Your task to perform on an android device: add a label to a message in the gmail app Image 0: 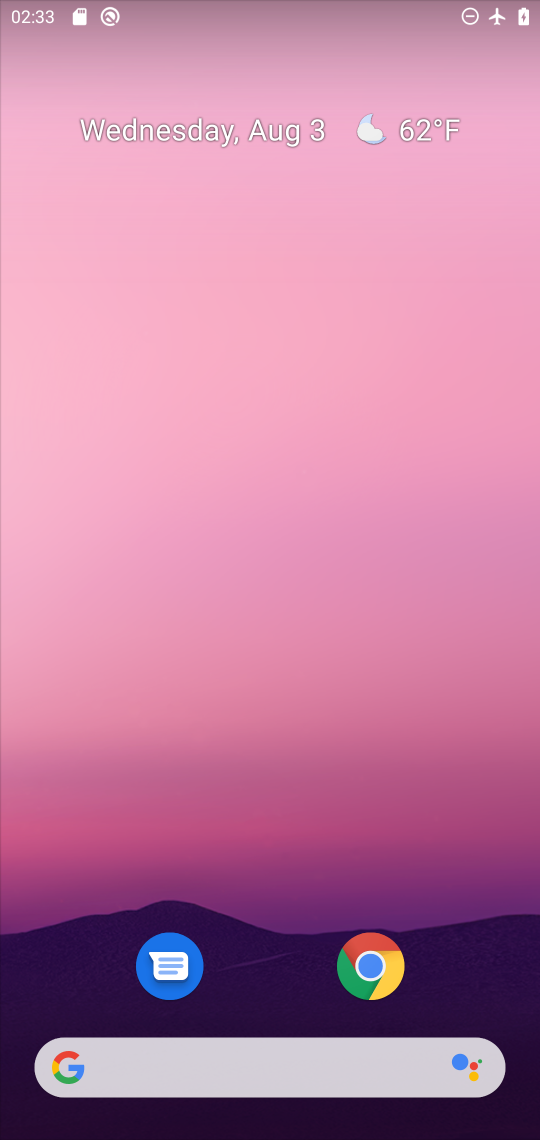
Step 0: drag from (286, 965) to (279, 192)
Your task to perform on an android device: add a label to a message in the gmail app Image 1: 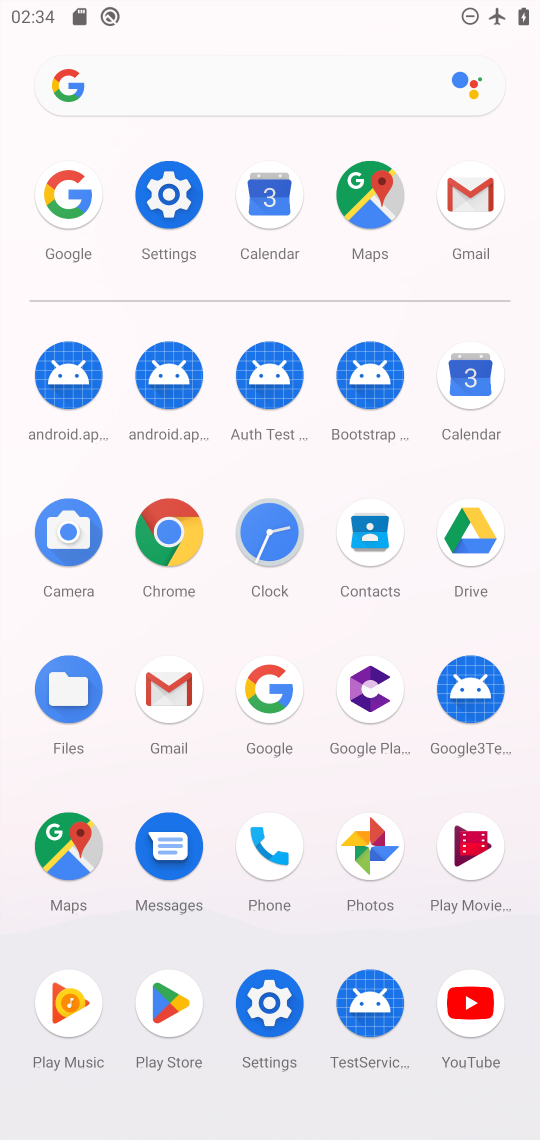
Step 1: click (435, 204)
Your task to perform on an android device: add a label to a message in the gmail app Image 2: 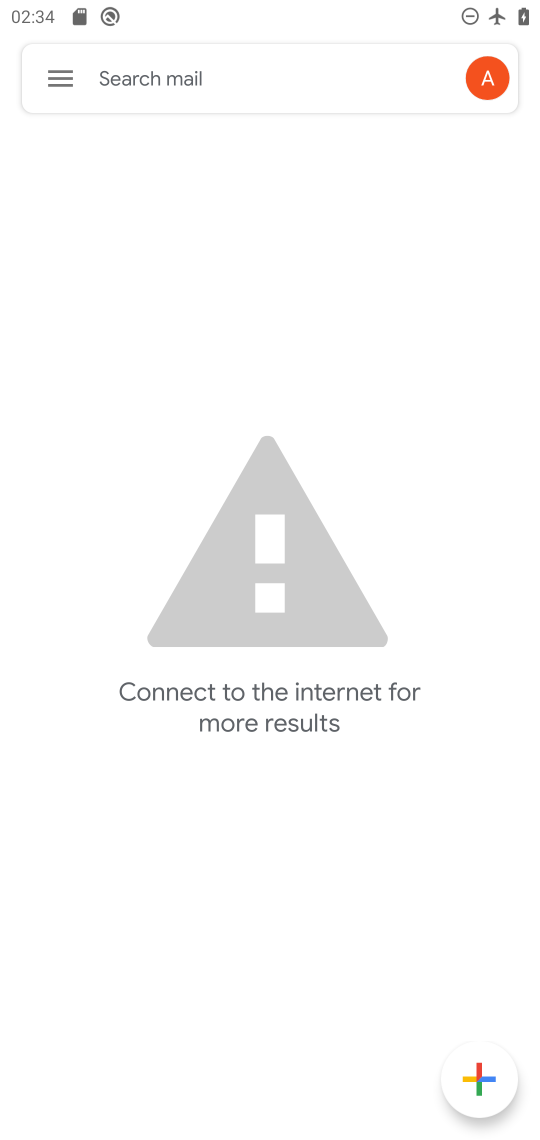
Step 2: click (70, 77)
Your task to perform on an android device: add a label to a message in the gmail app Image 3: 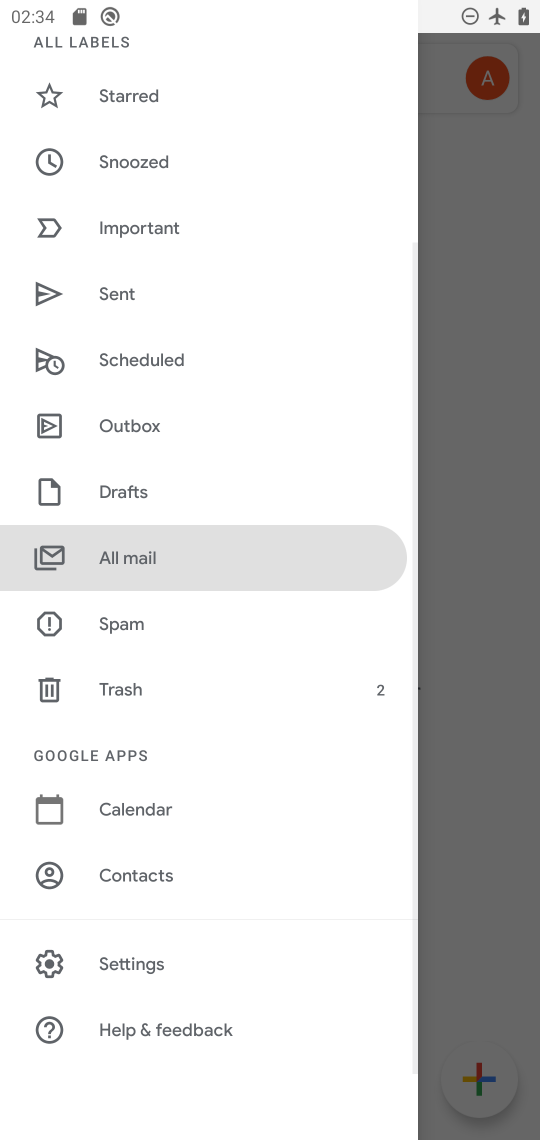
Step 3: click (127, 552)
Your task to perform on an android device: add a label to a message in the gmail app Image 4: 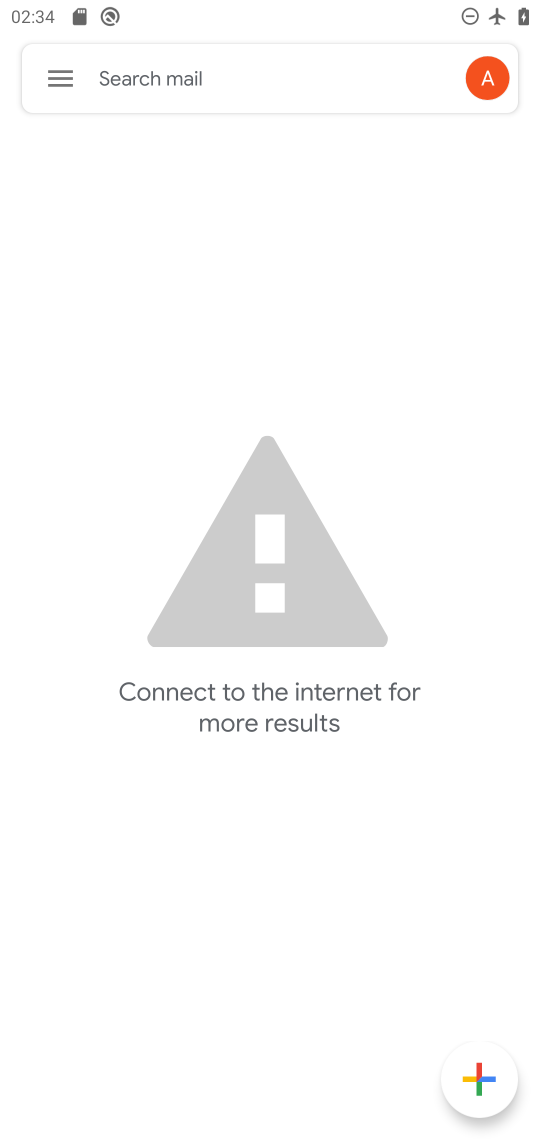
Step 4: task complete